Your task to perform on an android device: install app "Upside-Cash back on gas & food" Image 0: 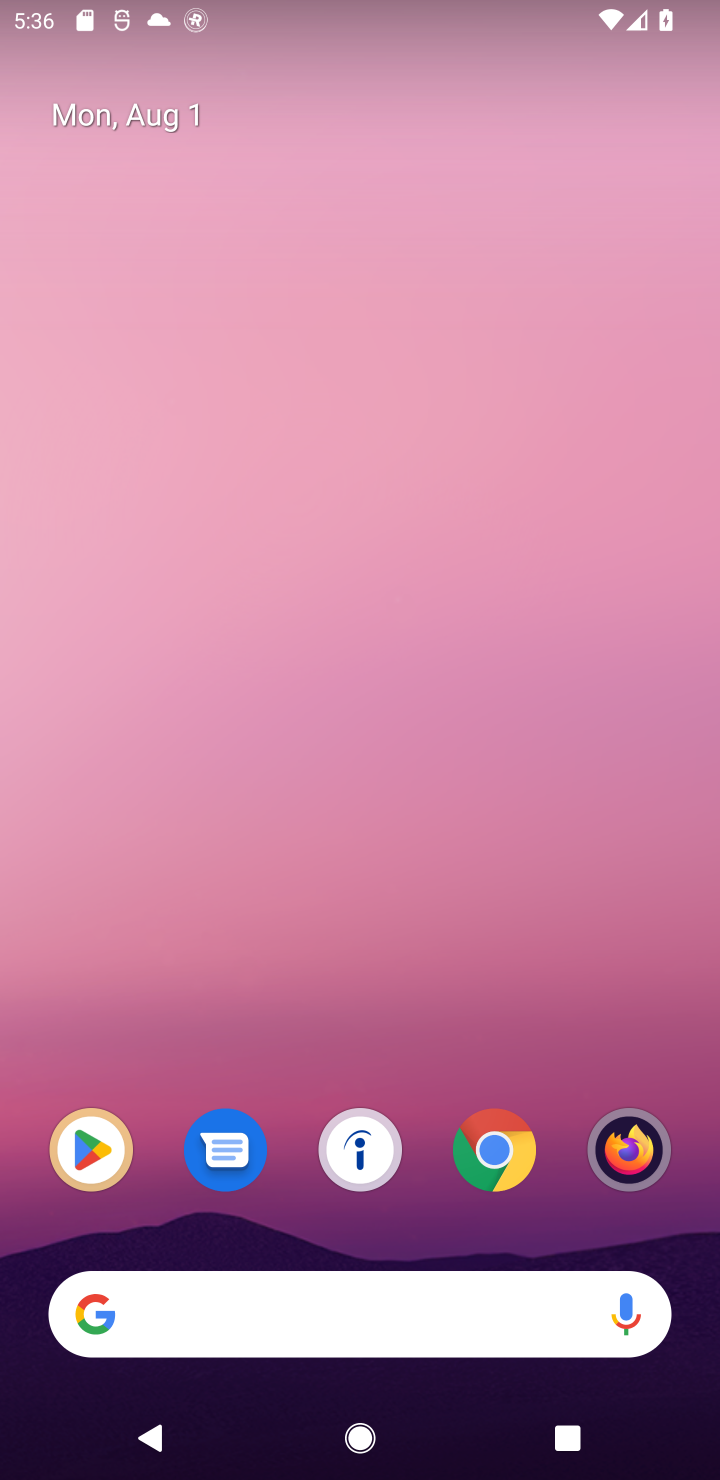
Step 0: drag from (281, 1231) to (241, 18)
Your task to perform on an android device: install app "Upside-Cash back on gas & food" Image 1: 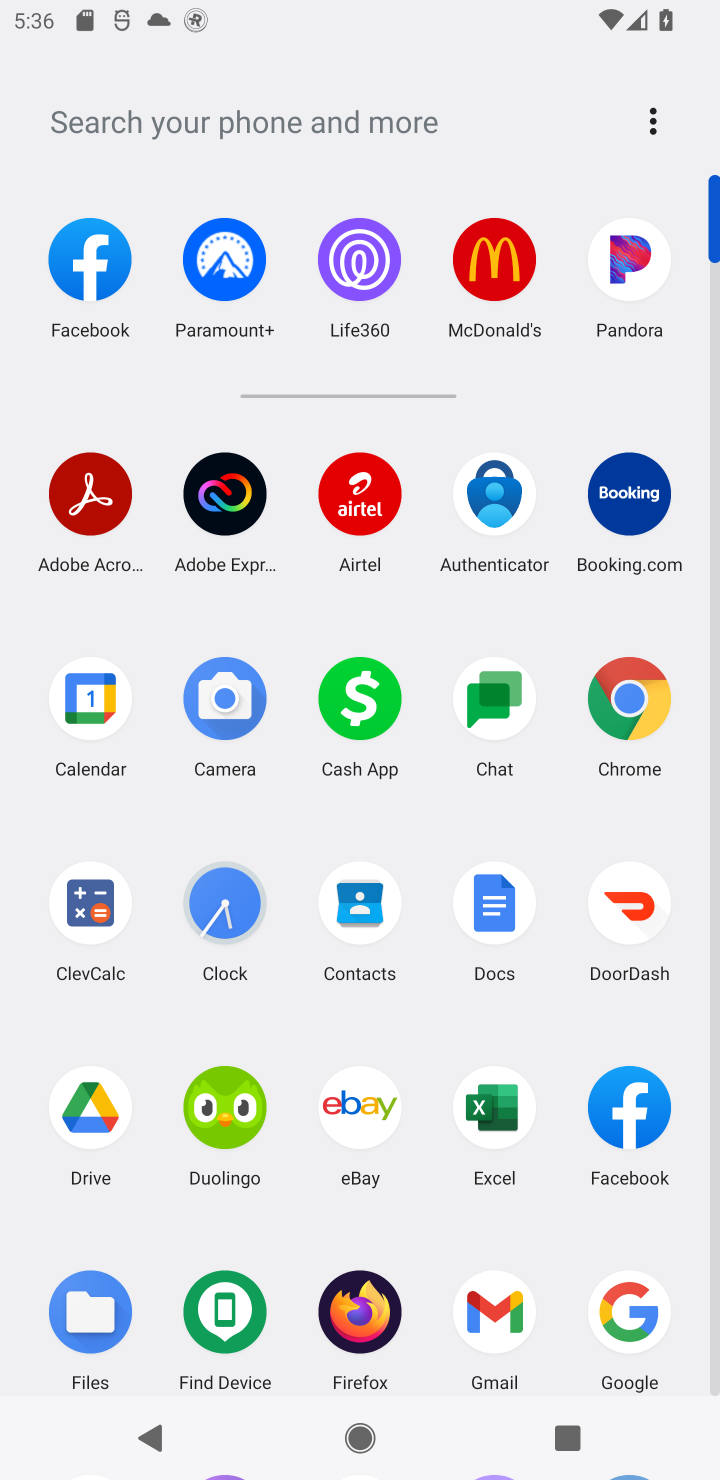
Step 1: click (319, 117)
Your task to perform on an android device: install app "Upside-Cash back on gas & food" Image 2: 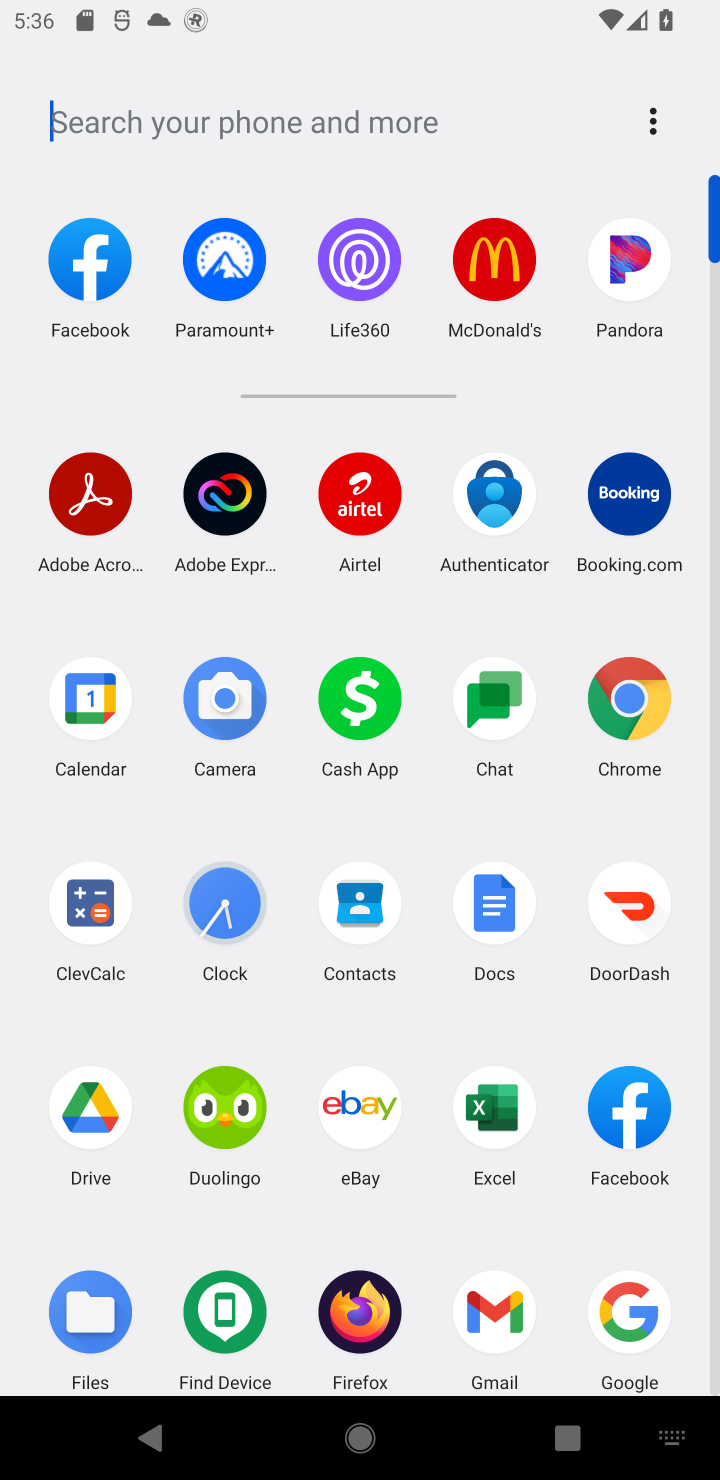
Step 2: type "uside cash"
Your task to perform on an android device: install app "Upside-Cash back on gas & food" Image 3: 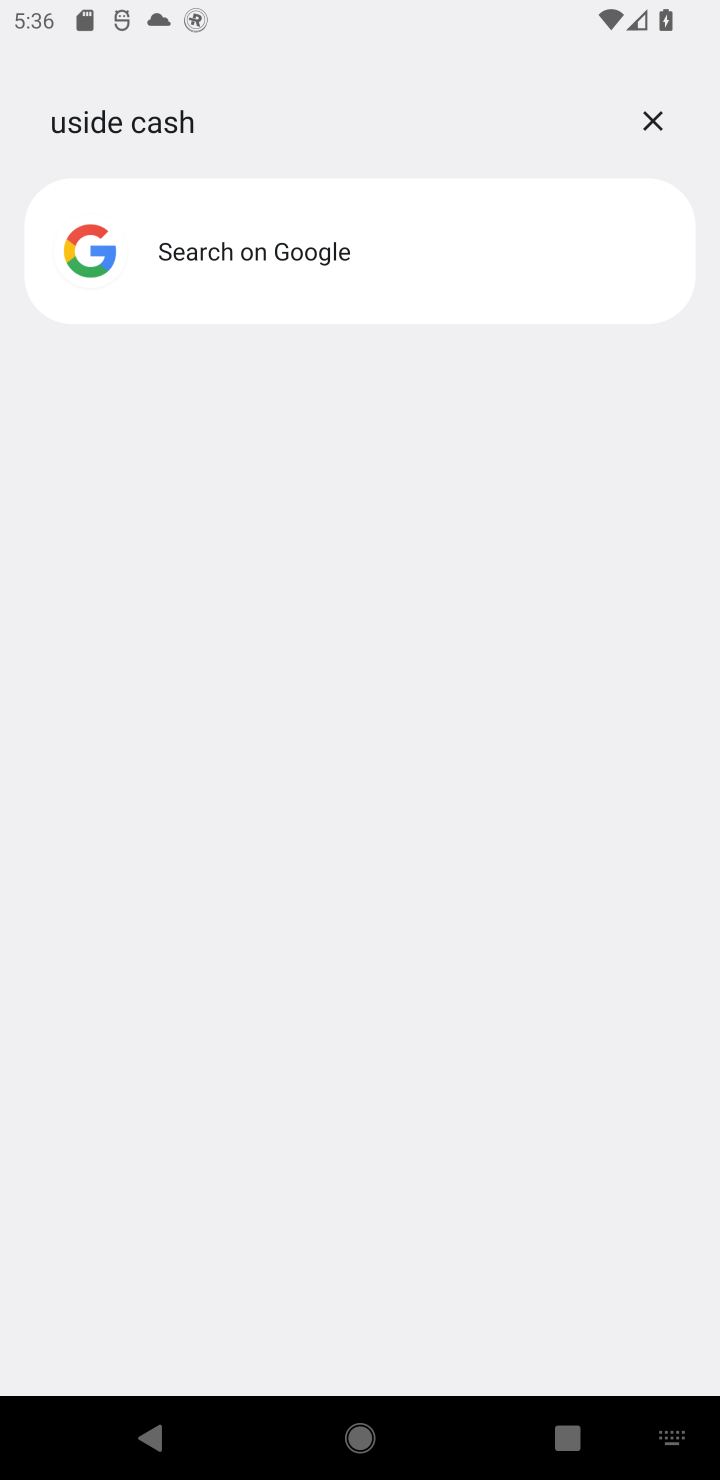
Step 3: task complete